Your task to perform on an android device: turn on airplane mode Image 0: 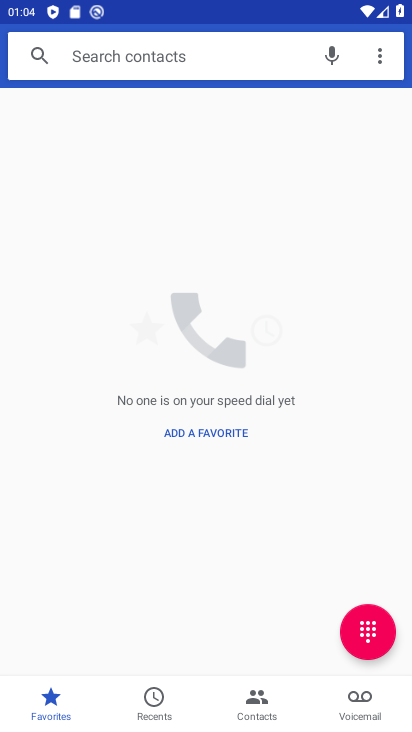
Step 0: press home button
Your task to perform on an android device: turn on airplane mode Image 1: 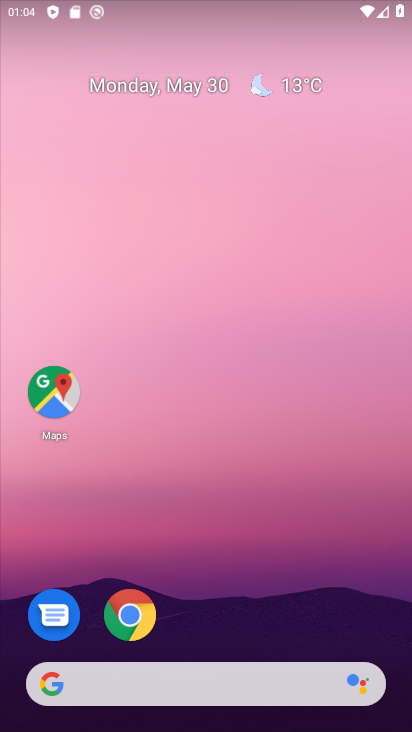
Step 1: drag from (194, 655) to (101, 66)
Your task to perform on an android device: turn on airplane mode Image 2: 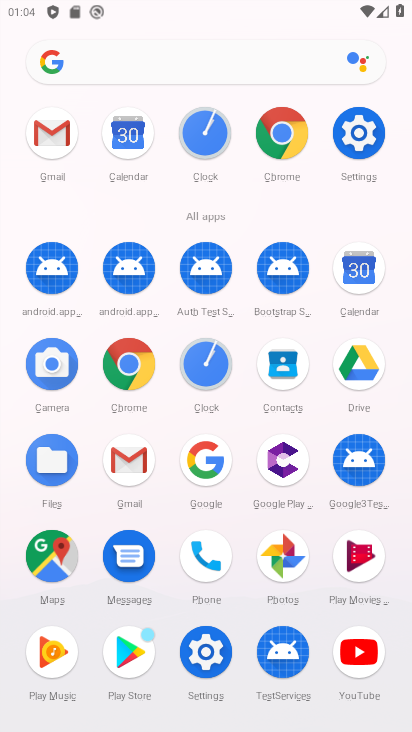
Step 2: click (361, 138)
Your task to perform on an android device: turn on airplane mode Image 3: 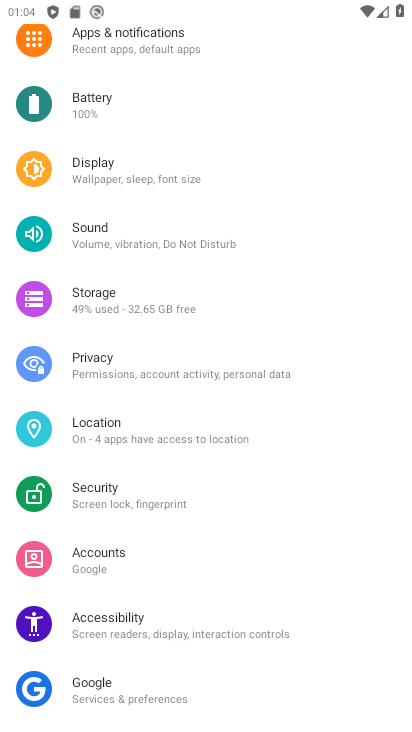
Step 3: drag from (261, 143) to (183, 619)
Your task to perform on an android device: turn on airplane mode Image 4: 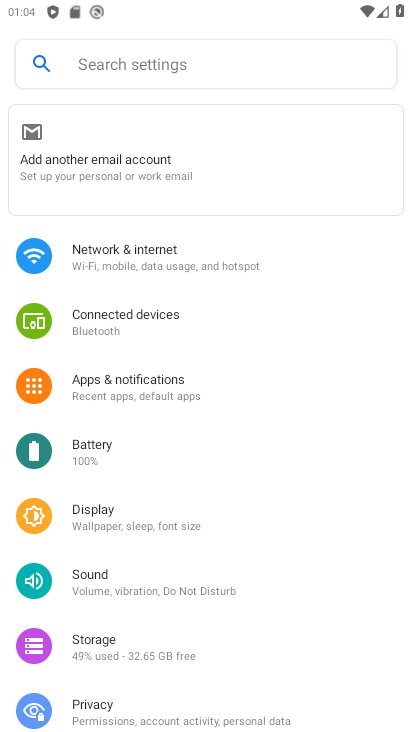
Step 4: click (140, 248)
Your task to perform on an android device: turn on airplane mode Image 5: 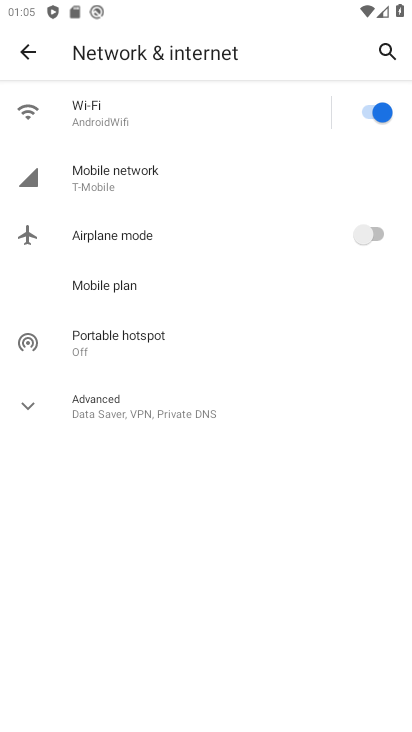
Step 5: click (373, 236)
Your task to perform on an android device: turn on airplane mode Image 6: 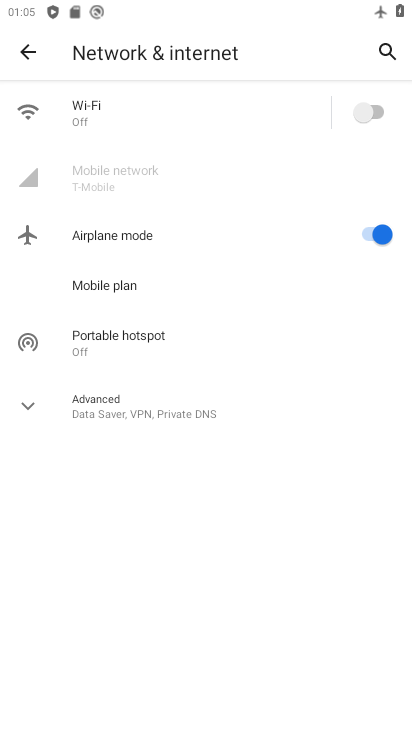
Step 6: task complete